Your task to perform on an android device: Go to Google Image 0: 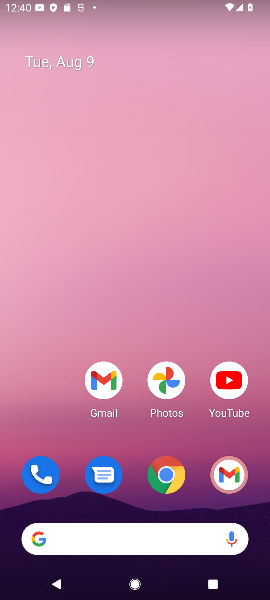
Step 0: drag from (125, 432) to (192, 29)
Your task to perform on an android device: Go to Google Image 1: 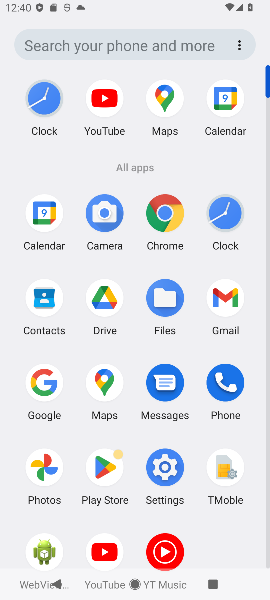
Step 1: click (38, 378)
Your task to perform on an android device: Go to Google Image 2: 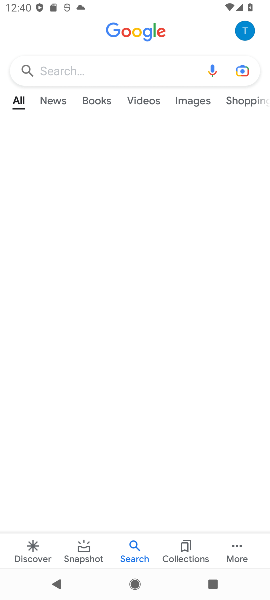
Step 2: task complete